Your task to perform on an android device: Open settings Image 0: 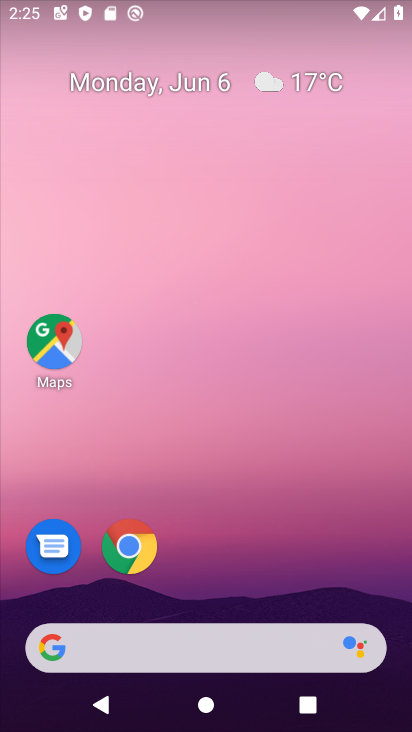
Step 0: drag from (262, 602) to (263, 332)
Your task to perform on an android device: Open settings Image 1: 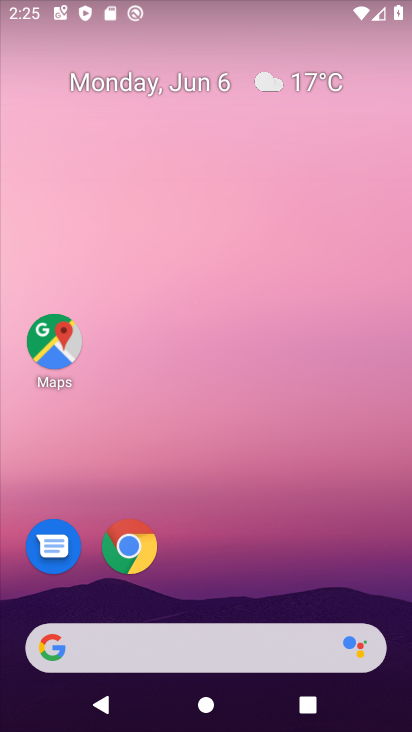
Step 1: drag from (262, 570) to (259, 180)
Your task to perform on an android device: Open settings Image 2: 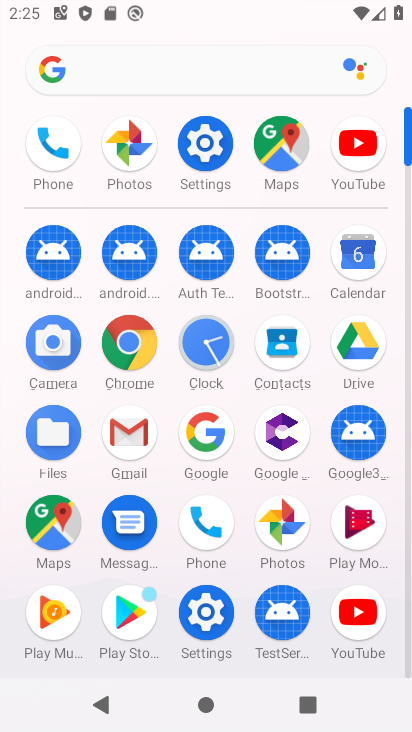
Step 2: click (190, 171)
Your task to perform on an android device: Open settings Image 3: 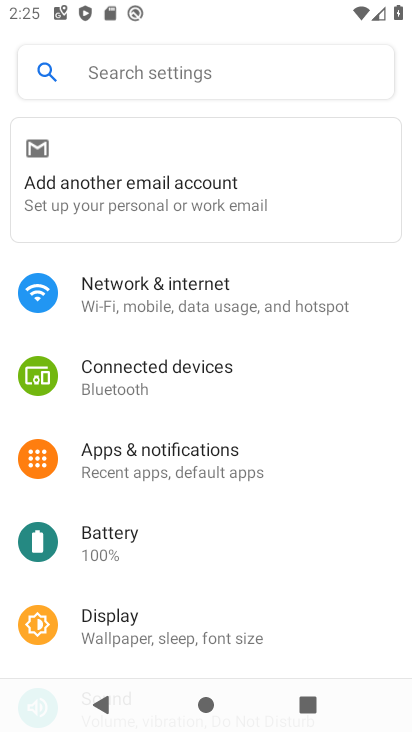
Step 3: task complete